Your task to perform on an android device: change the clock display to show seconds Image 0: 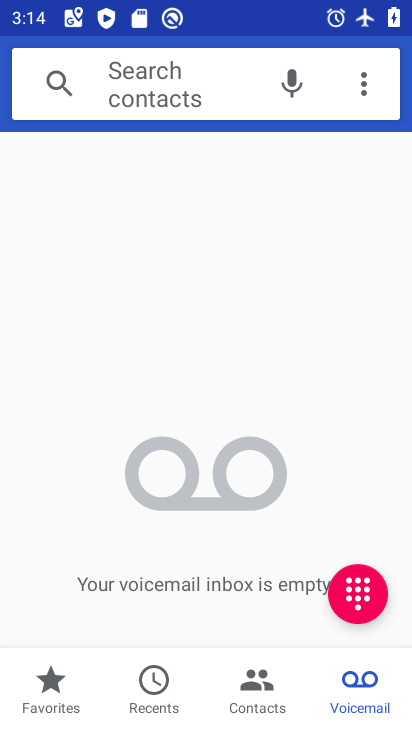
Step 0: press home button
Your task to perform on an android device: change the clock display to show seconds Image 1: 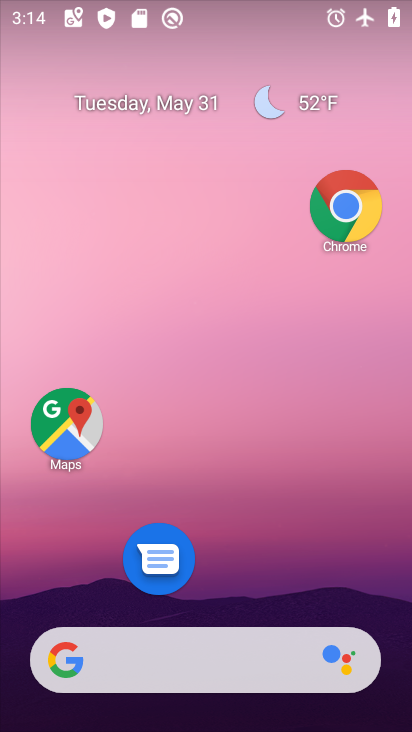
Step 1: drag from (279, 583) to (238, 188)
Your task to perform on an android device: change the clock display to show seconds Image 2: 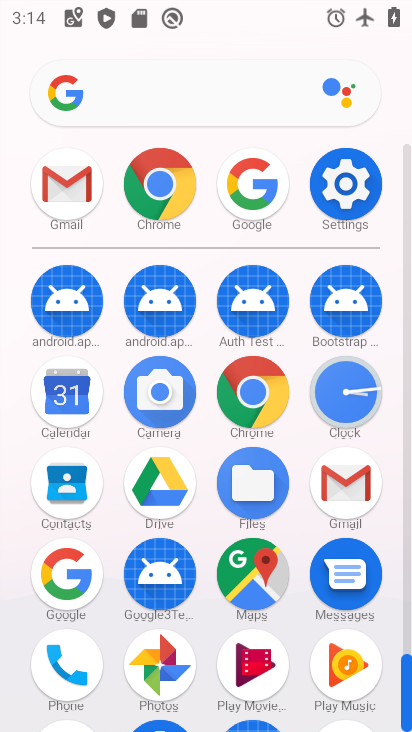
Step 2: drag from (201, 246) to (213, 98)
Your task to perform on an android device: change the clock display to show seconds Image 3: 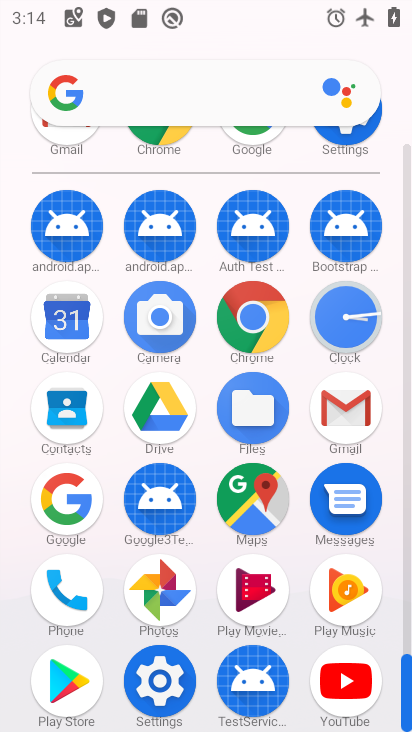
Step 3: click (262, 346)
Your task to perform on an android device: change the clock display to show seconds Image 4: 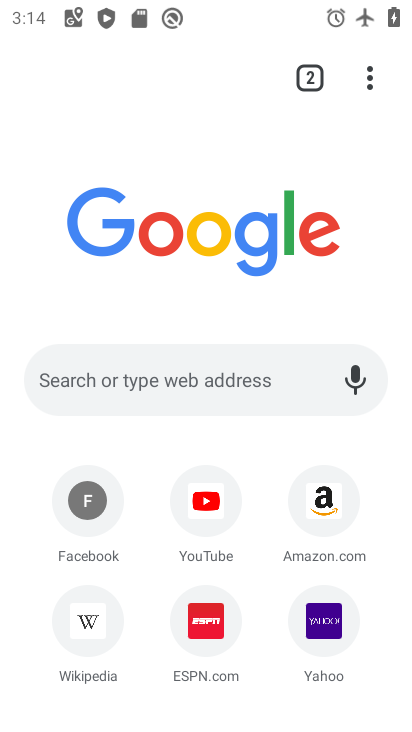
Step 4: press home button
Your task to perform on an android device: change the clock display to show seconds Image 5: 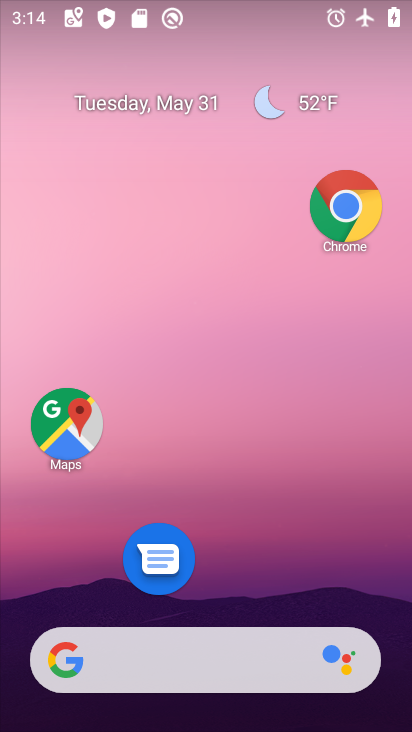
Step 5: drag from (244, 601) to (208, 157)
Your task to perform on an android device: change the clock display to show seconds Image 6: 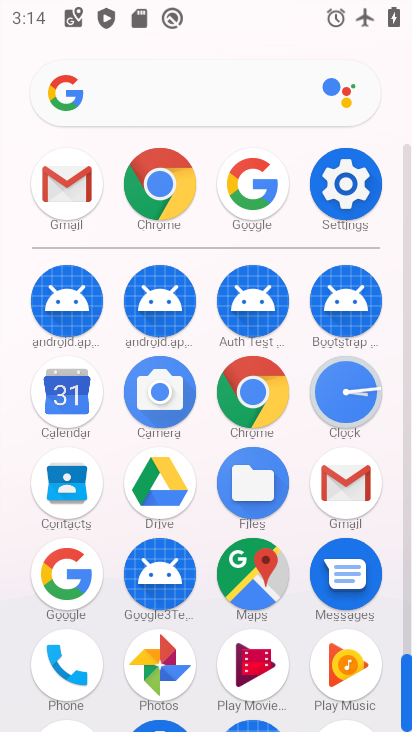
Step 6: click (332, 402)
Your task to perform on an android device: change the clock display to show seconds Image 7: 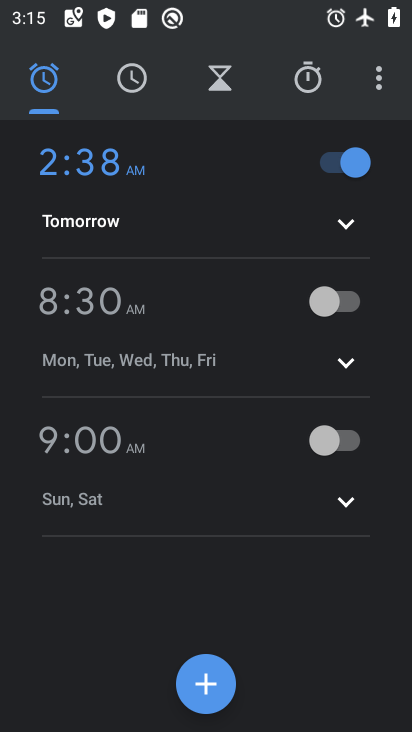
Step 7: click (369, 85)
Your task to perform on an android device: change the clock display to show seconds Image 8: 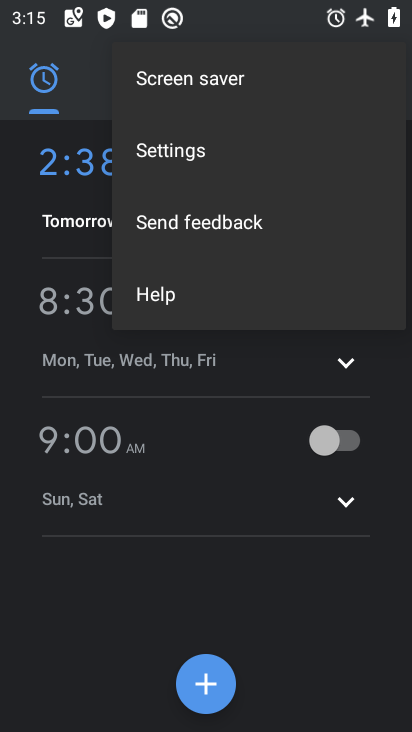
Step 8: click (250, 155)
Your task to perform on an android device: change the clock display to show seconds Image 9: 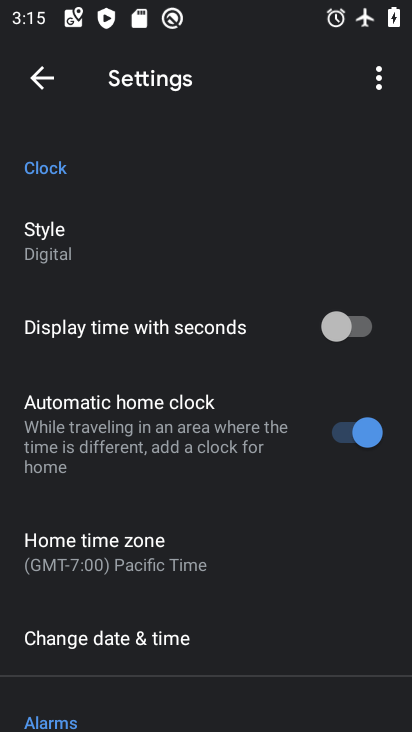
Step 9: click (321, 349)
Your task to perform on an android device: change the clock display to show seconds Image 10: 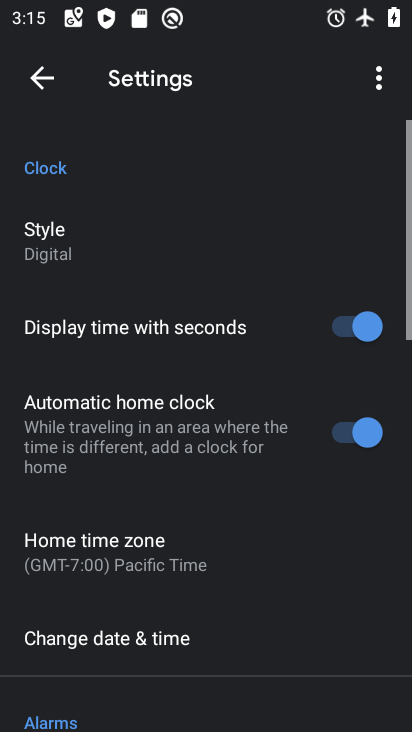
Step 10: task complete